Your task to perform on an android device: all mails in gmail Image 0: 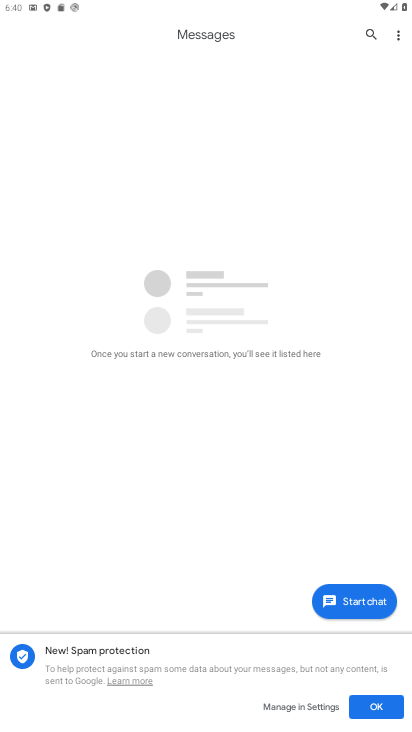
Step 0: press home button
Your task to perform on an android device: all mails in gmail Image 1: 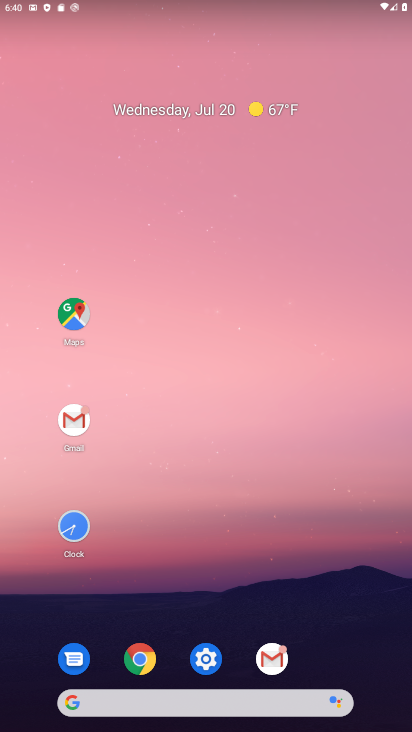
Step 1: click (280, 659)
Your task to perform on an android device: all mails in gmail Image 2: 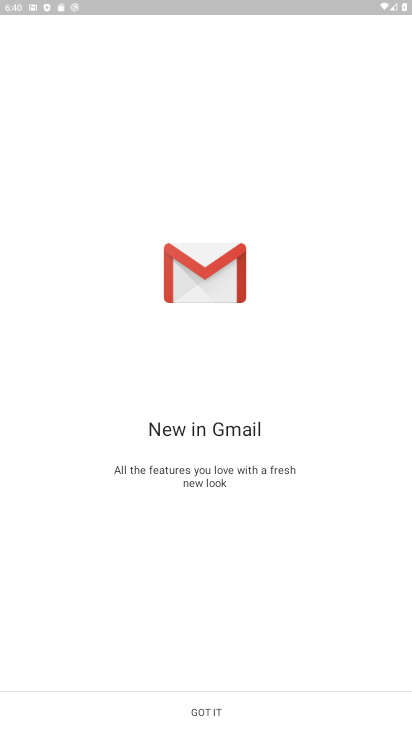
Step 2: click (194, 712)
Your task to perform on an android device: all mails in gmail Image 3: 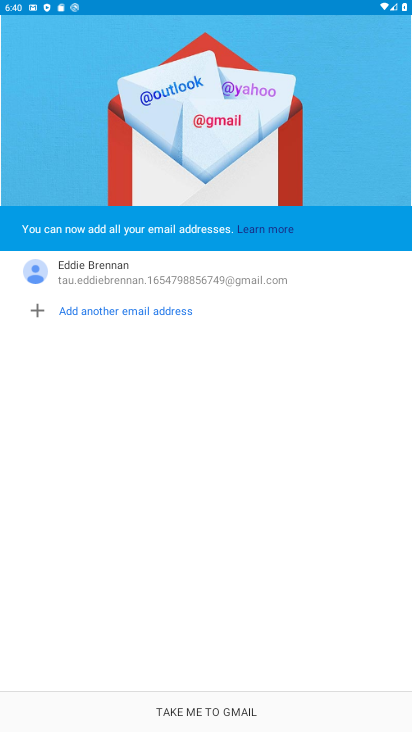
Step 3: click (194, 712)
Your task to perform on an android device: all mails in gmail Image 4: 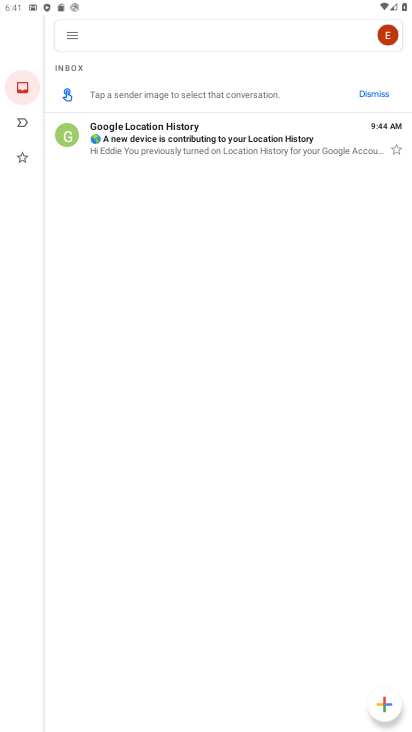
Step 4: click (68, 33)
Your task to perform on an android device: all mails in gmail Image 5: 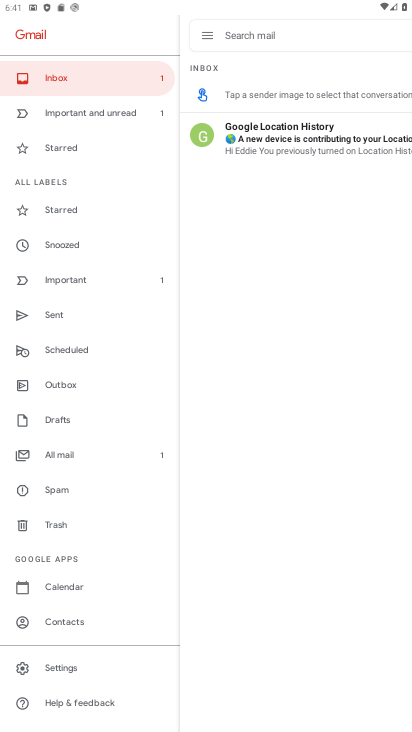
Step 5: click (52, 447)
Your task to perform on an android device: all mails in gmail Image 6: 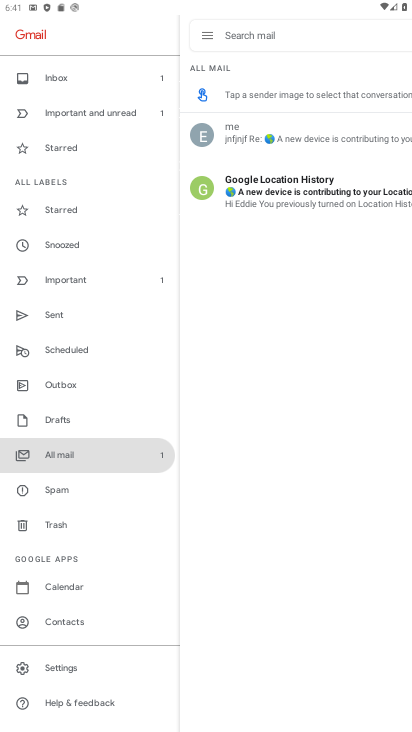
Step 6: task complete